Your task to perform on an android device: turn on the 12-hour format for clock Image 0: 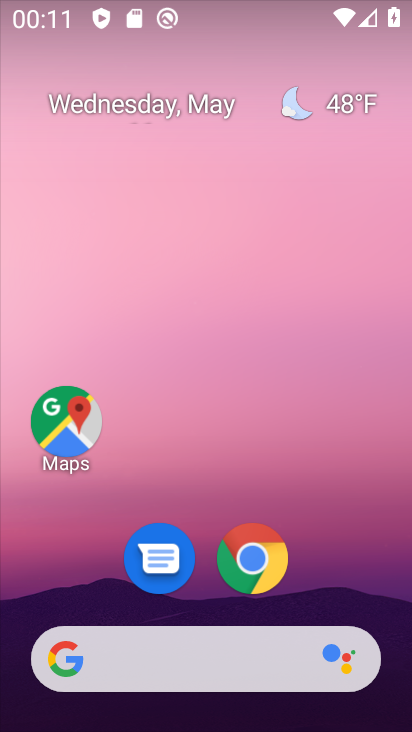
Step 0: drag from (384, 567) to (379, 217)
Your task to perform on an android device: turn on the 12-hour format for clock Image 1: 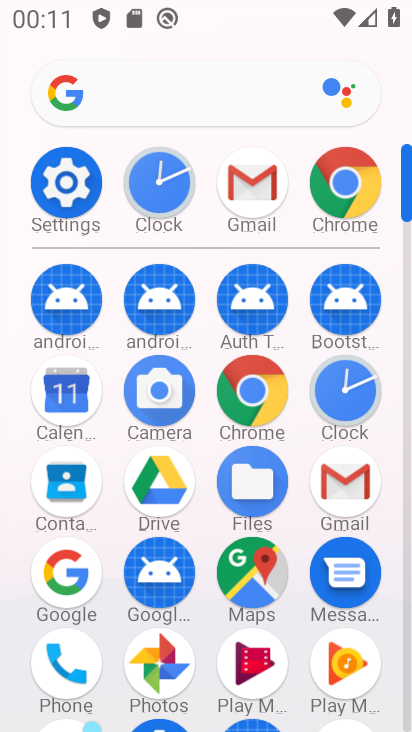
Step 1: click (362, 397)
Your task to perform on an android device: turn on the 12-hour format for clock Image 2: 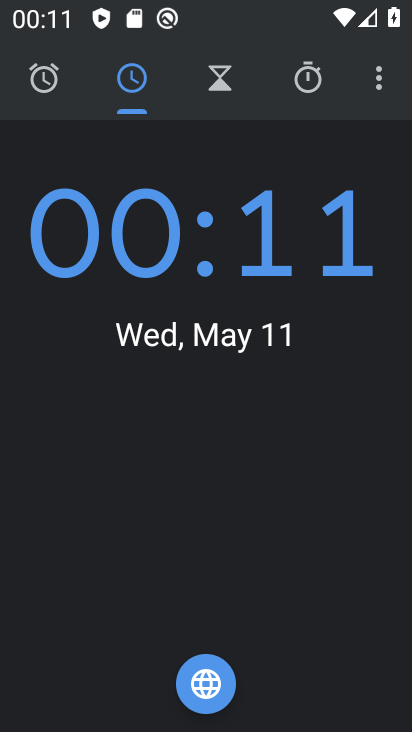
Step 2: click (380, 87)
Your task to perform on an android device: turn on the 12-hour format for clock Image 3: 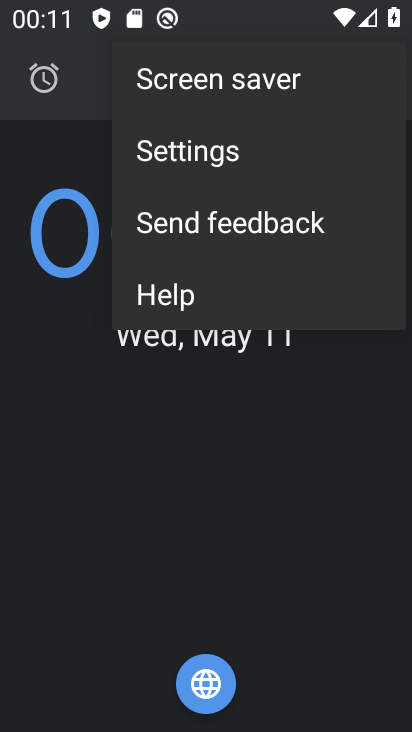
Step 3: click (235, 171)
Your task to perform on an android device: turn on the 12-hour format for clock Image 4: 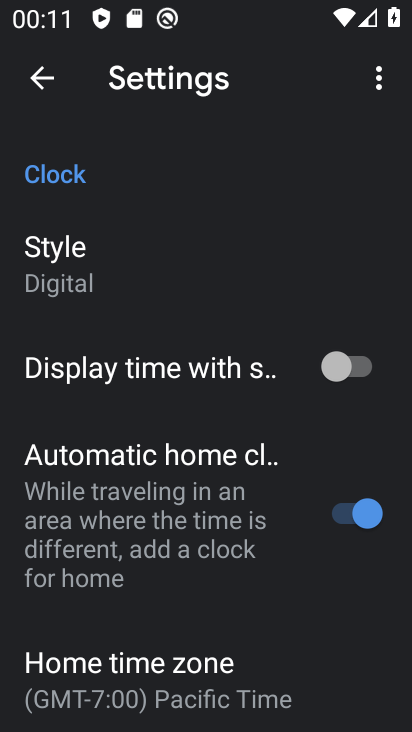
Step 4: drag from (253, 658) to (271, 280)
Your task to perform on an android device: turn on the 12-hour format for clock Image 5: 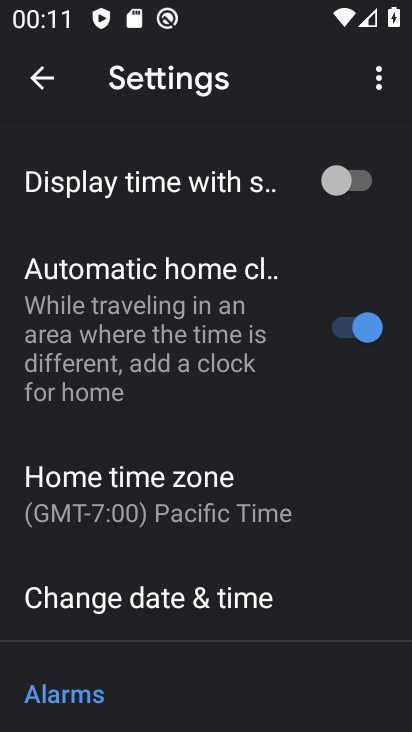
Step 5: click (212, 594)
Your task to perform on an android device: turn on the 12-hour format for clock Image 6: 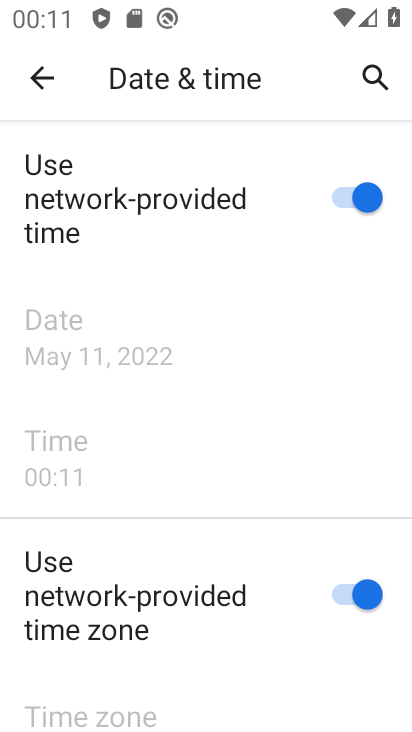
Step 6: drag from (206, 685) to (275, 77)
Your task to perform on an android device: turn on the 12-hour format for clock Image 7: 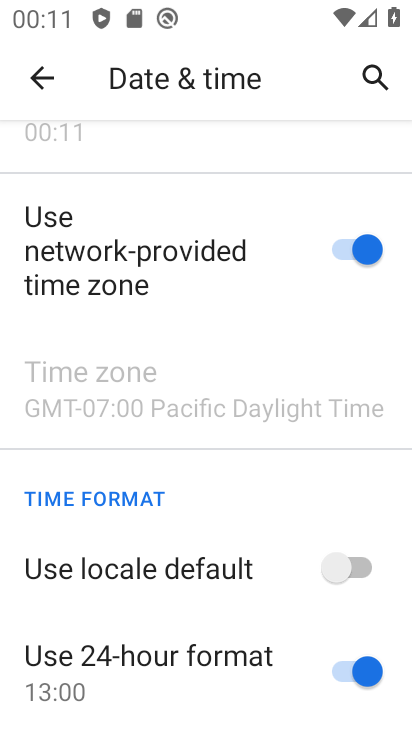
Step 7: click (339, 675)
Your task to perform on an android device: turn on the 12-hour format for clock Image 8: 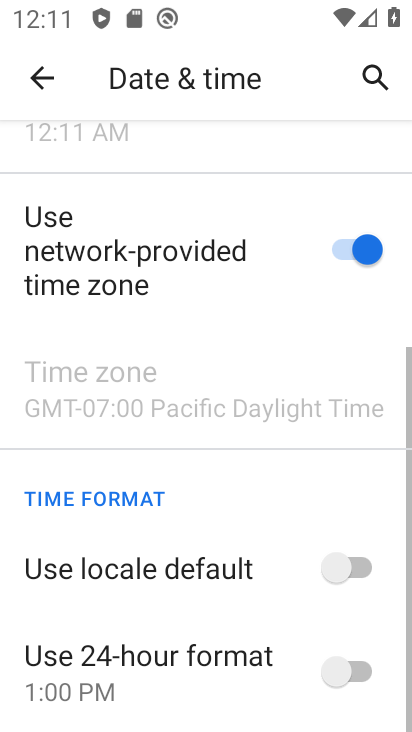
Step 8: click (363, 561)
Your task to perform on an android device: turn on the 12-hour format for clock Image 9: 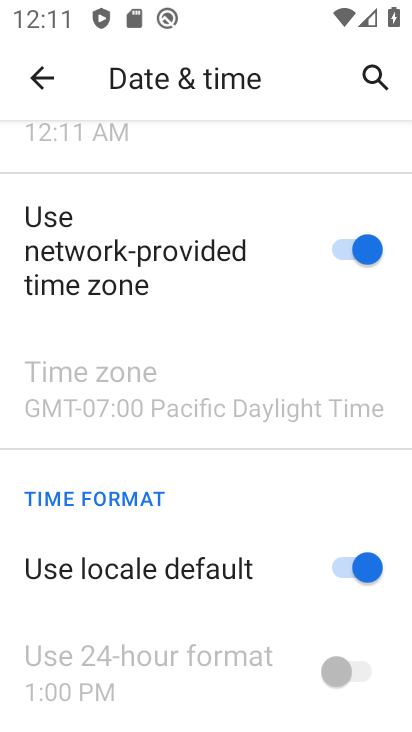
Step 9: task complete